Your task to perform on an android device: Go to Wikipedia Image 0: 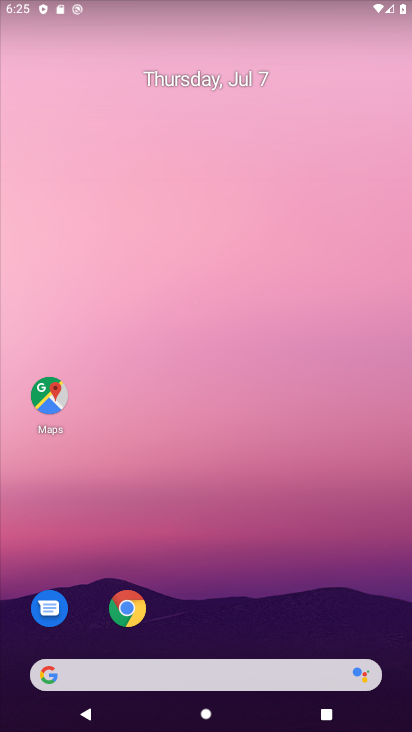
Step 0: click (117, 606)
Your task to perform on an android device: Go to Wikipedia Image 1: 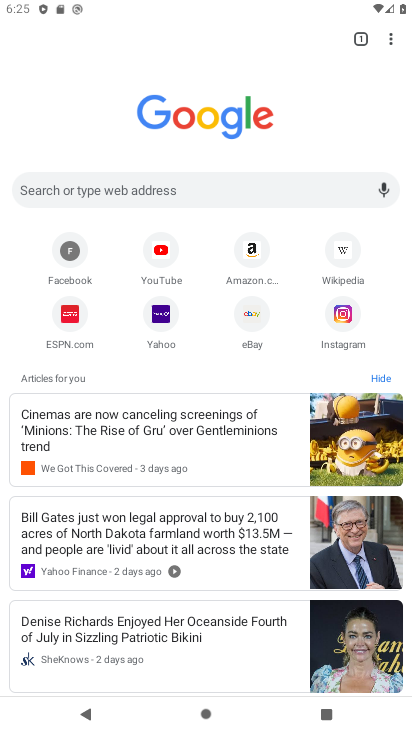
Step 1: click (344, 255)
Your task to perform on an android device: Go to Wikipedia Image 2: 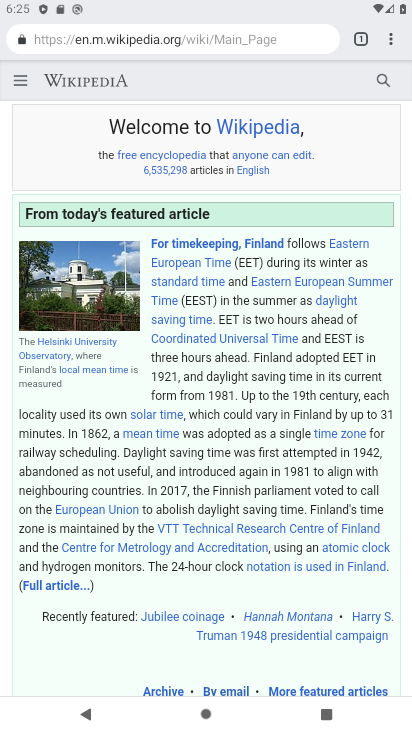
Step 2: task complete